Your task to perform on an android device: turn off priority inbox in the gmail app Image 0: 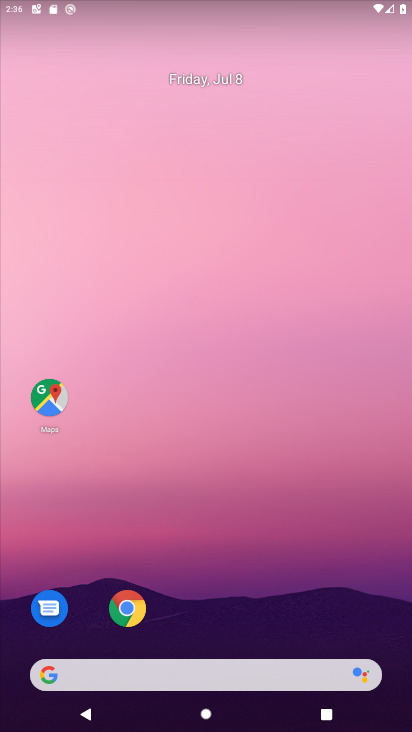
Step 0: drag from (294, 626) to (269, 297)
Your task to perform on an android device: turn off priority inbox in the gmail app Image 1: 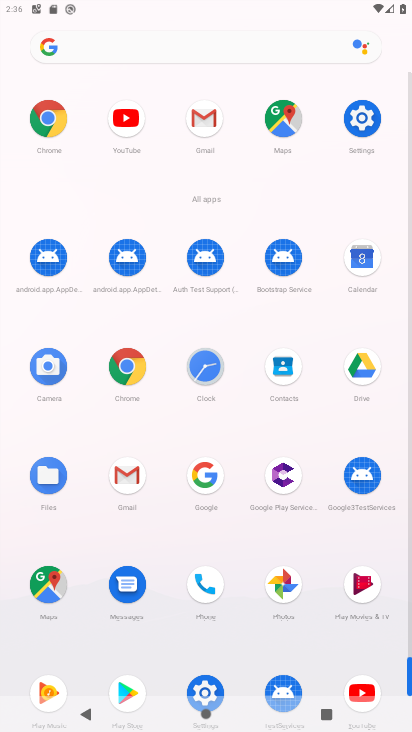
Step 1: click (204, 115)
Your task to perform on an android device: turn off priority inbox in the gmail app Image 2: 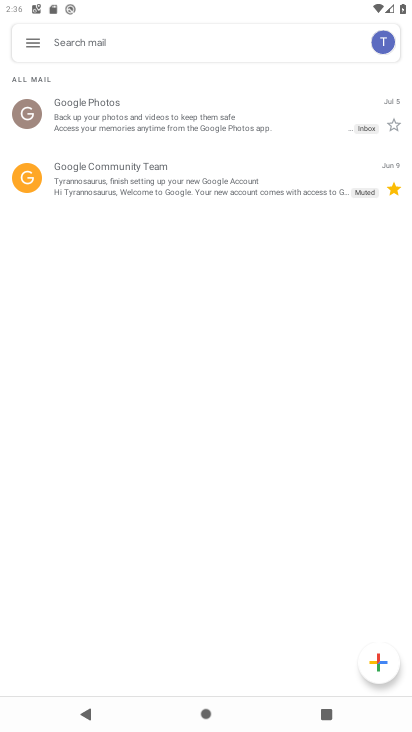
Step 2: click (24, 48)
Your task to perform on an android device: turn off priority inbox in the gmail app Image 3: 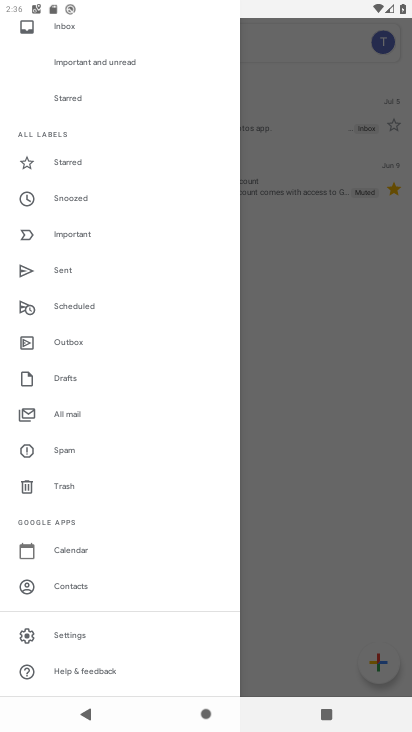
Step 3: click (109, 634)
Your task to perform on an android device: turn off priority inbox in the gmail app Image 4: 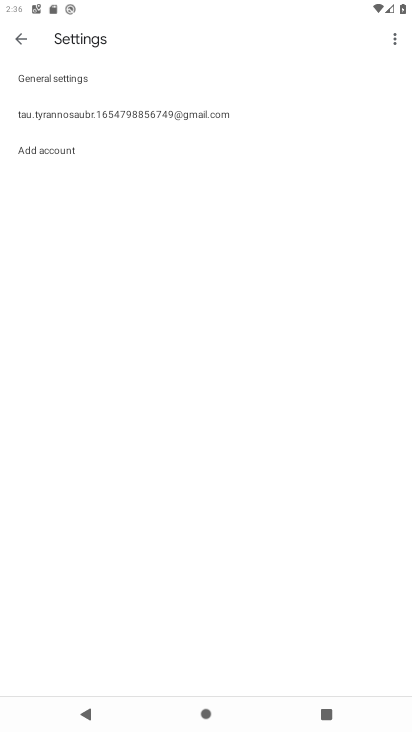
Step 4: click (82, 77)
Your task to perform on an android device: turn off priority inbox in the gmail app Image 5: 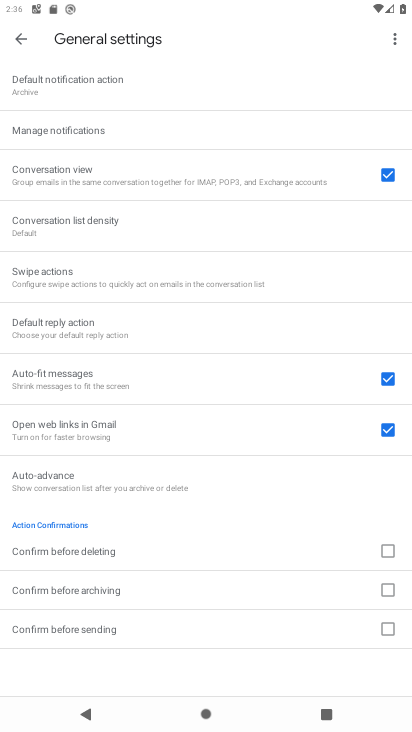
Step 5: click (25, 36)
Your task to perform on an android device: turn off priority inbox in the gmail app Image 6: 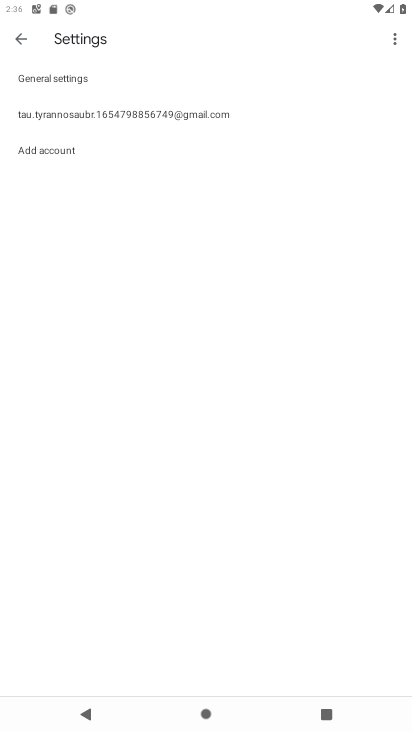
Step 6: click (82, 105)
Your task to perform on an android device: turn off priority inbox in the gmail app Image 7: 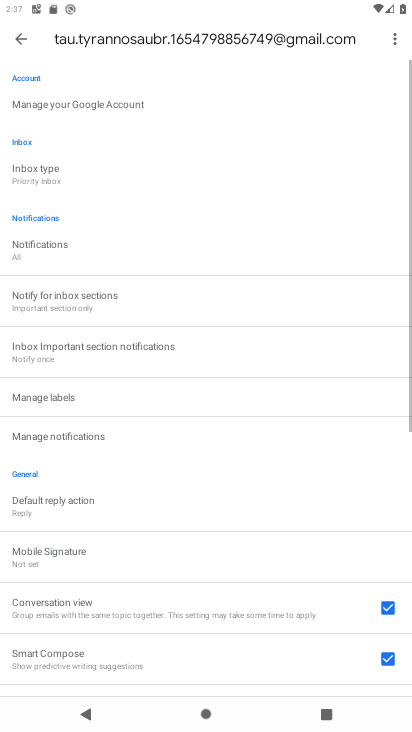
Step 7: click (80, 165)
Your task to perform on an android device: turn off priority inbox in the gmail app Image 8: 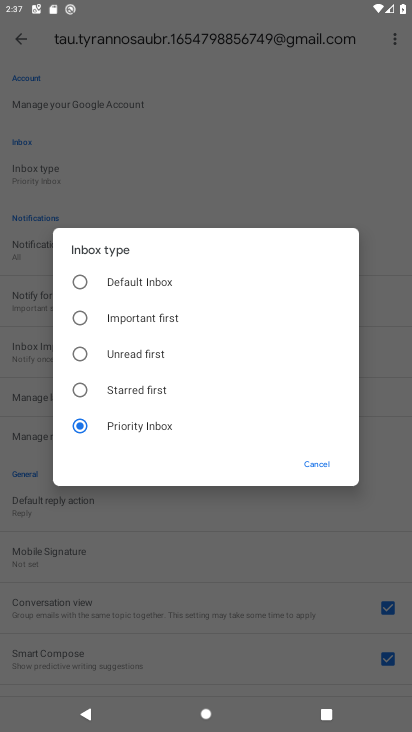
Step 8: click (121, 274)
Your task to perform on an android device: turn off priority inbox in the gmail app Image 9: 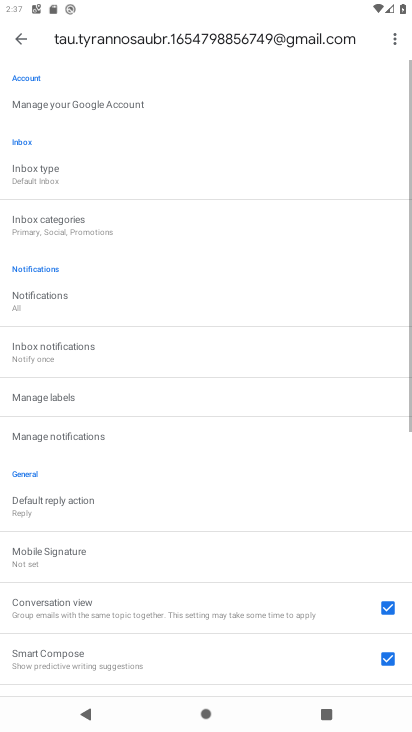
Step 9: task complete